Your task to perform on an android device: set an alarm Image 0: 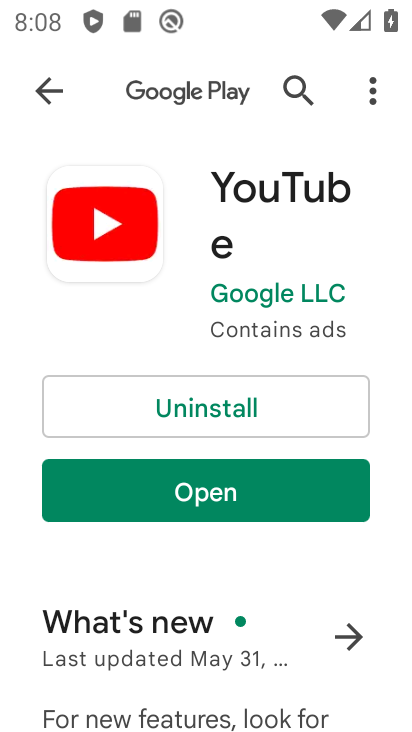
Step 0: press home button
Your task to perform on an android device: set an alarm Image 1: 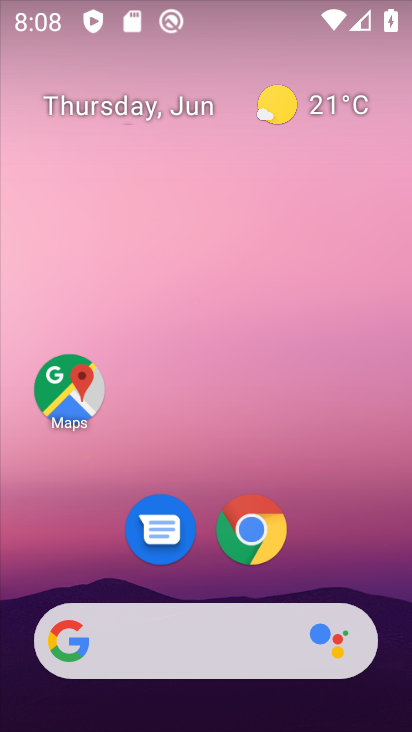
Step 1: drag from (373, 650) to (309, 218)
Your task to perform on an android device: set an alarm Image 2: 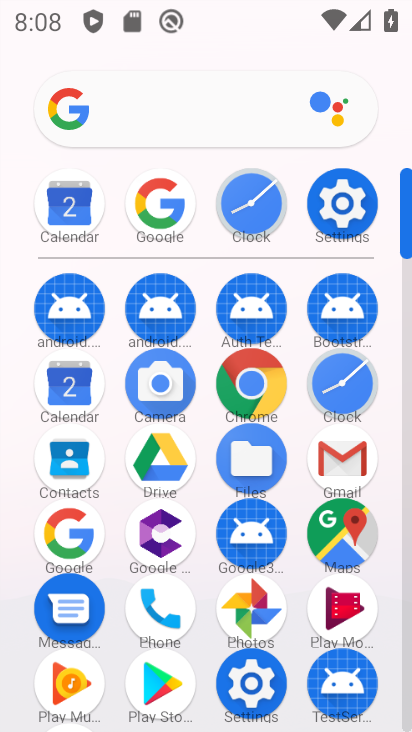
Step 2: click (331, 383)
Your task to perform on an android device: set an alarm Image 3: 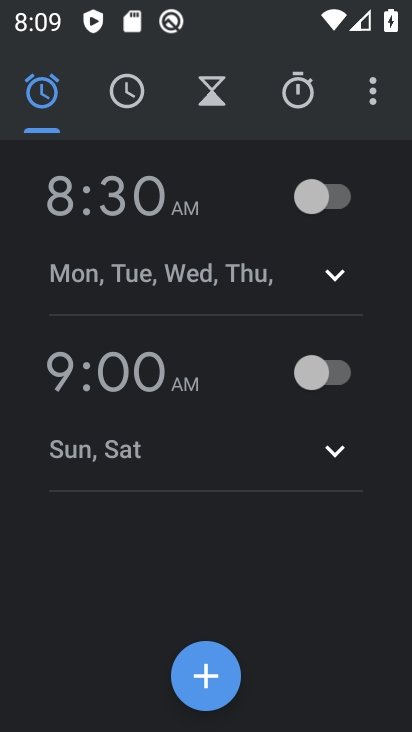
Step 3: click (335, 196)
Your task to perform on an android device: set an alarm Image 4: 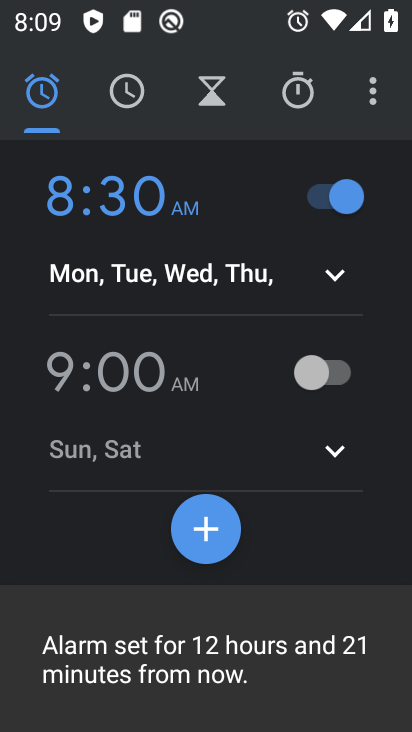
Step 4: task complete